Your task to perform on an android device: Go to Maps Image 0: 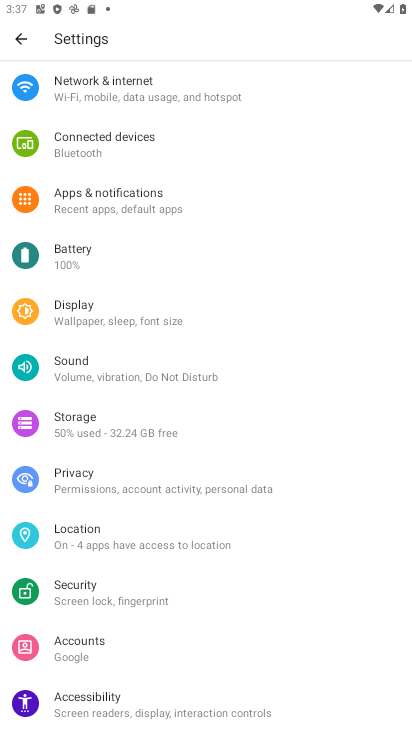
Step 0: press home button
Your task to perform on an android device: Go to Maps Image 1: 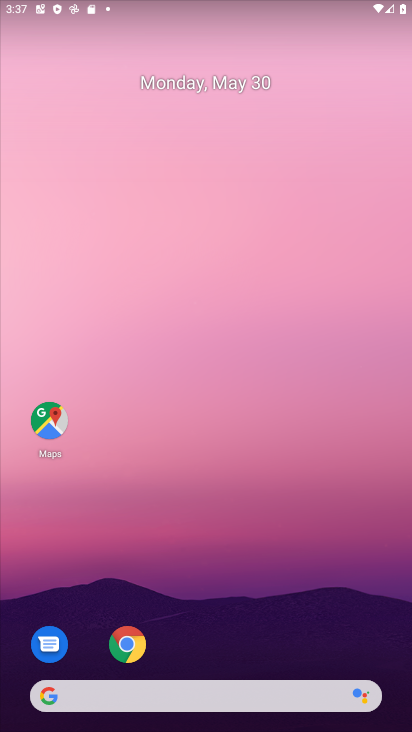
Step 1: click (63, 444)
Your task to perform on an android device: Go to Maps Image 2: 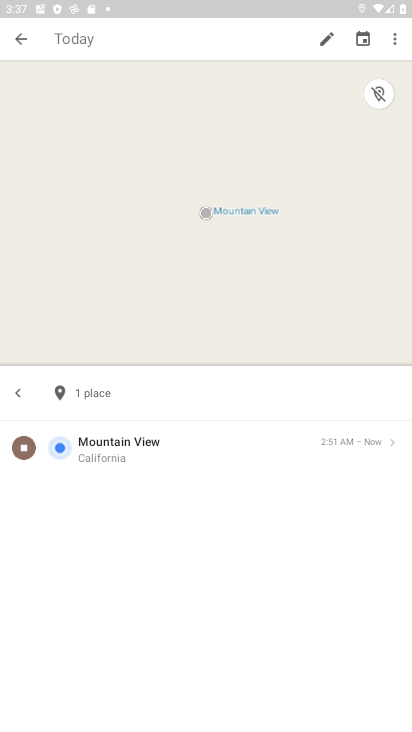
Step 2: task complete